Your task to perform on an android device: turn on notifications settings in the gmail app Image 0: 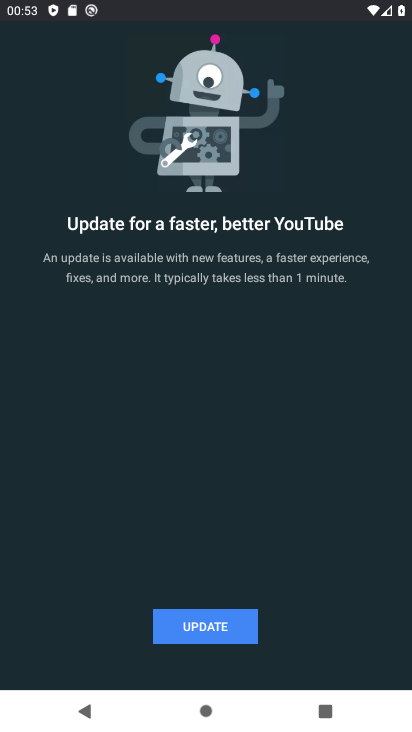
Step 0: press home button
Your task to perform on an android device: turn on notifications settings in the gmail app Image 1: 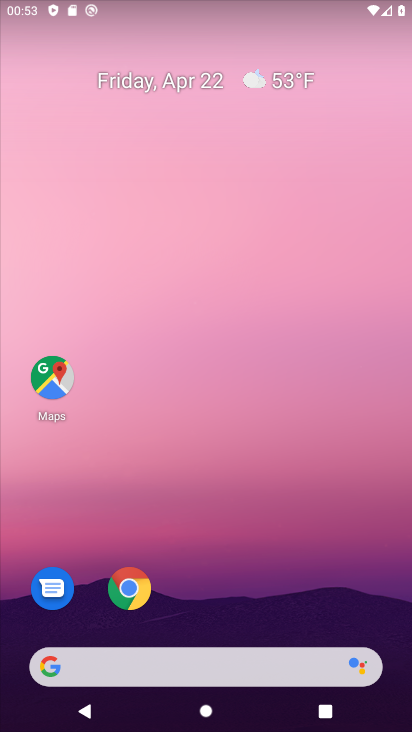
Step 1: drag from (236, 568) to (283, 146)
Your task to perform on an android device: turn on notifications settings in the gmail app Image 2: 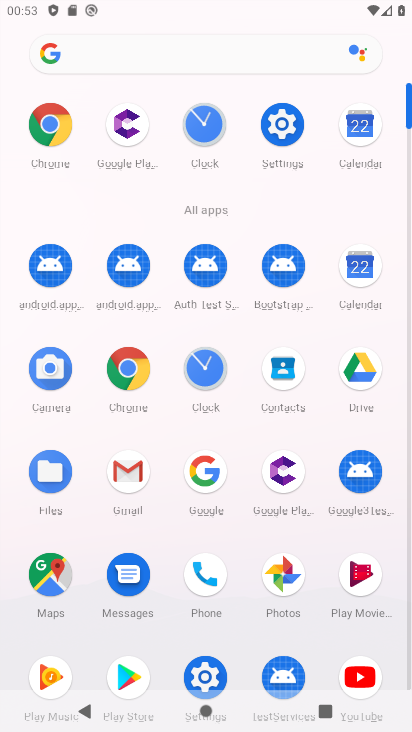
Step 2: click (120, 465)
Your task to perform on an android device: turn on notifications settings in the gmail app Image 3: 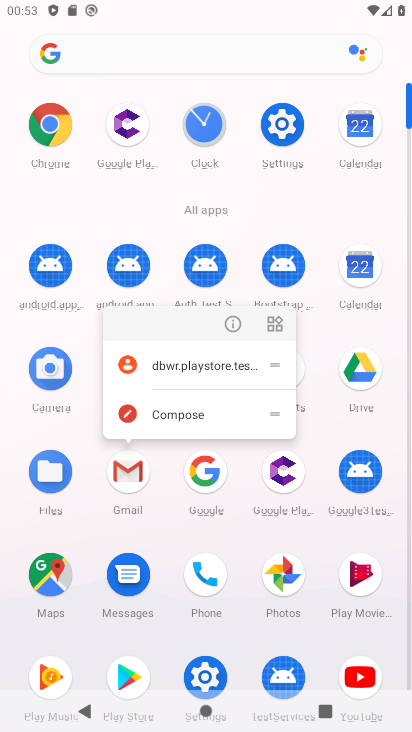
Step 3: click (234, 323)
Your task to perform on an android device: turn on notifications settings in the gmail app Image 4: 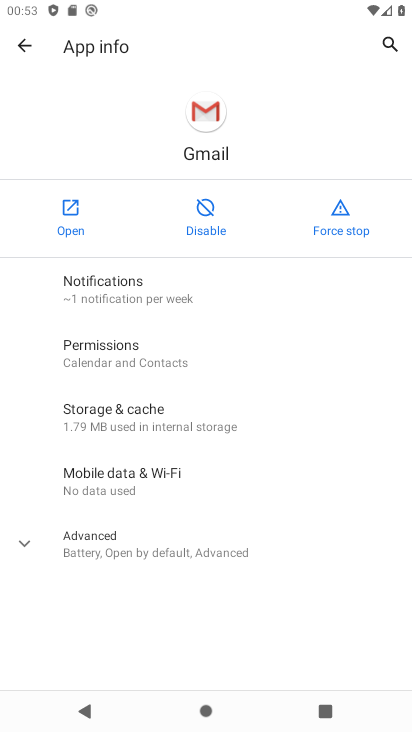
Step 4: click (103, 290)
Your task to perform on an android device: turn on notifications settings in the gmail app Image 5: 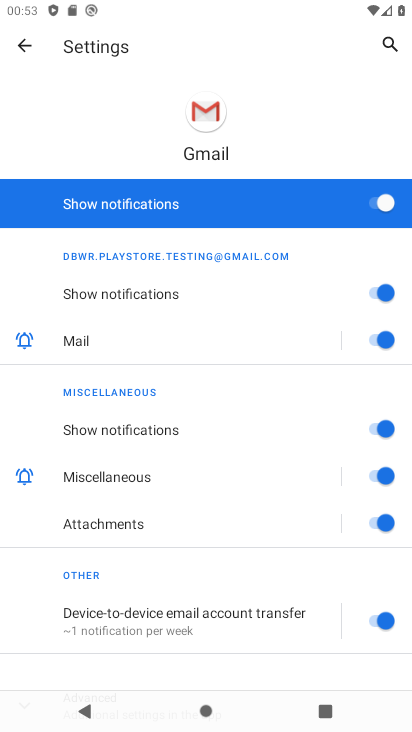
Step 5: task complete